Your task to perform on an android device: Search for Italian restaurants on Maps Image 0: 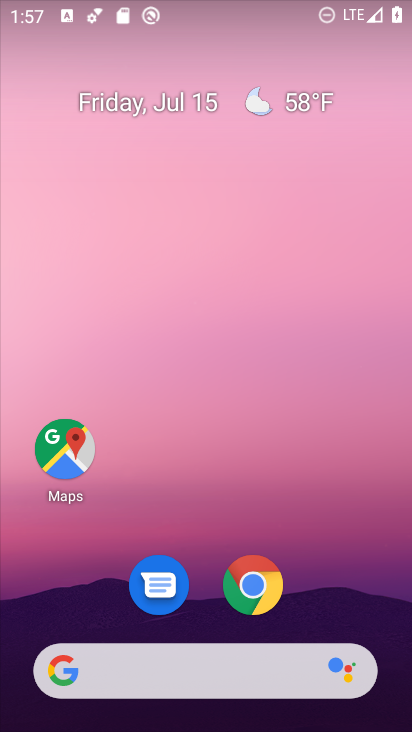
Step 0: click (55, 437)
Your task to perform on an android device: Search for Italian restaurants on Maps Image 1: 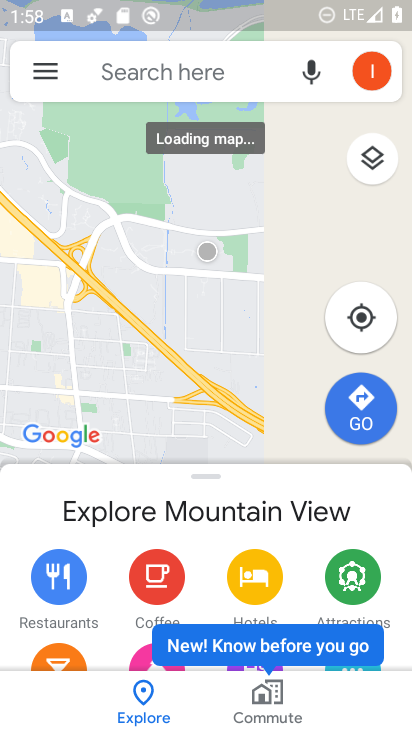
Step 1: click (203, 69)
Your task to perform on an android device: Search for Italian restaurants on Maps Image 2: 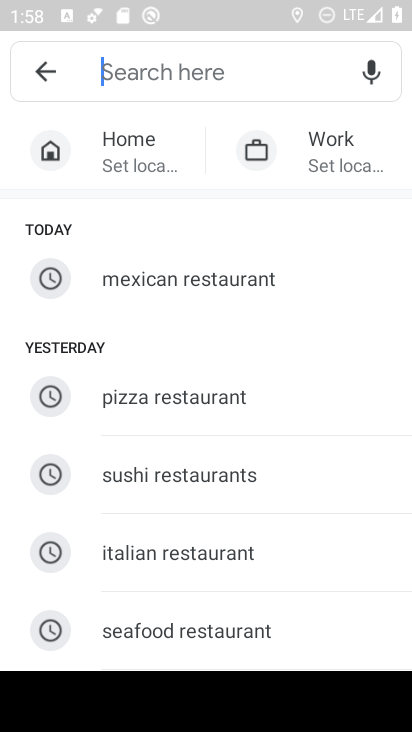
Step 2: click (207, 547)
Your task to perform on an android device: Search for Italian restaurants on Maps Image 3: 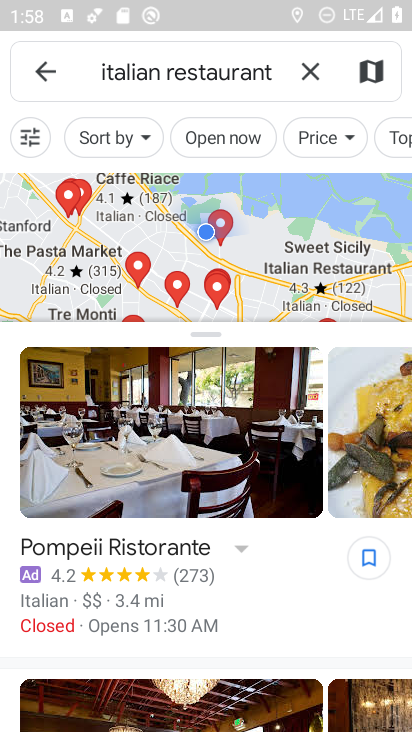
Step 3: task complete